Your task to perform on an android device: Search for "logitech g pro" on amazon, select the first entry, and add it to the cart. Image 0: 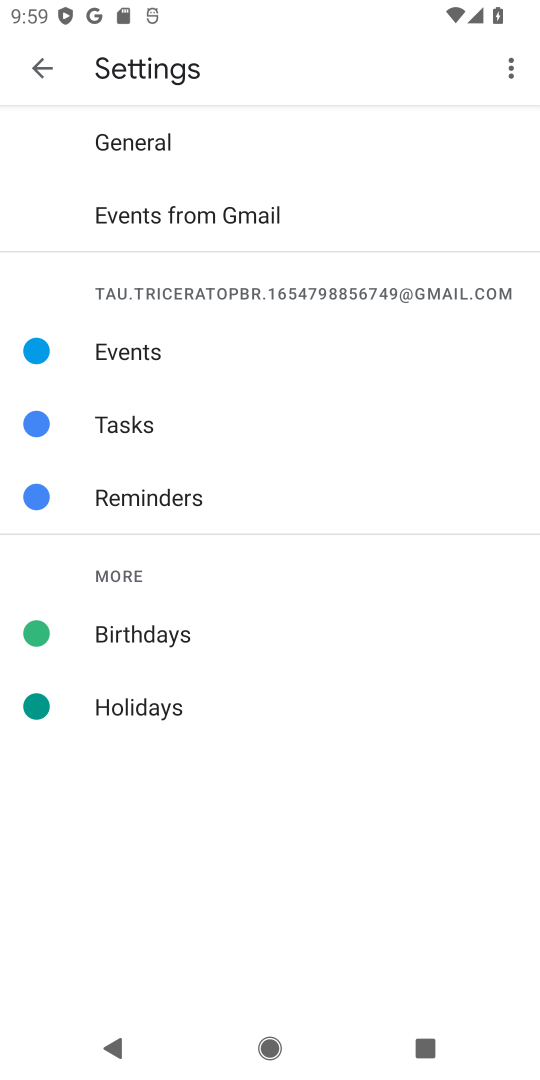
Step 0: press home button
Your task to perform on an android device: Search for "logitech g pro" on amazon, select the first entry, and add it to the cart. Image 1: 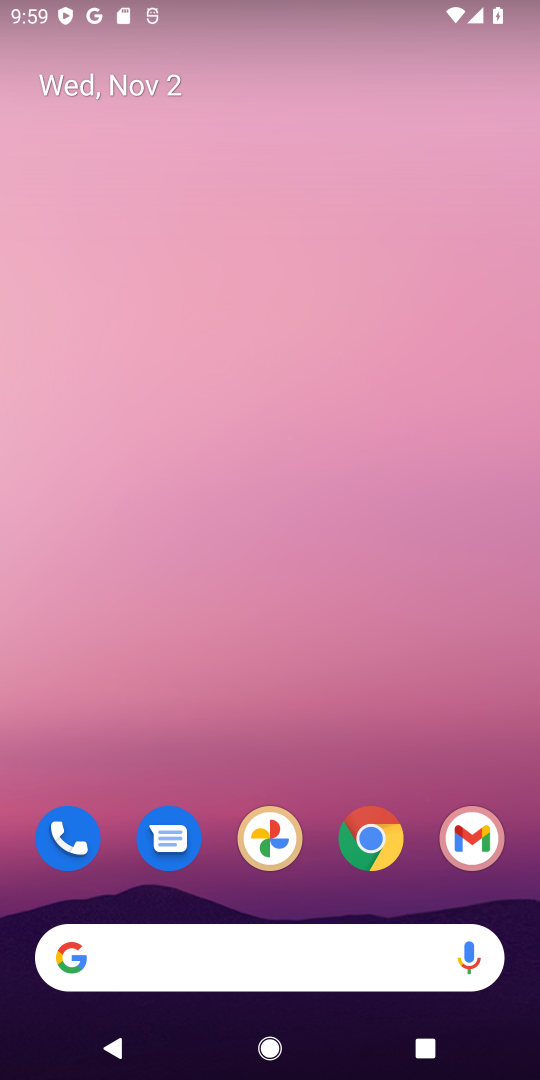
Step 1: click (367, 848)
Your task to perform on an android device: Search for "logitech g pro" on amazon, select the first entry, and add it to the cart. Image 2: 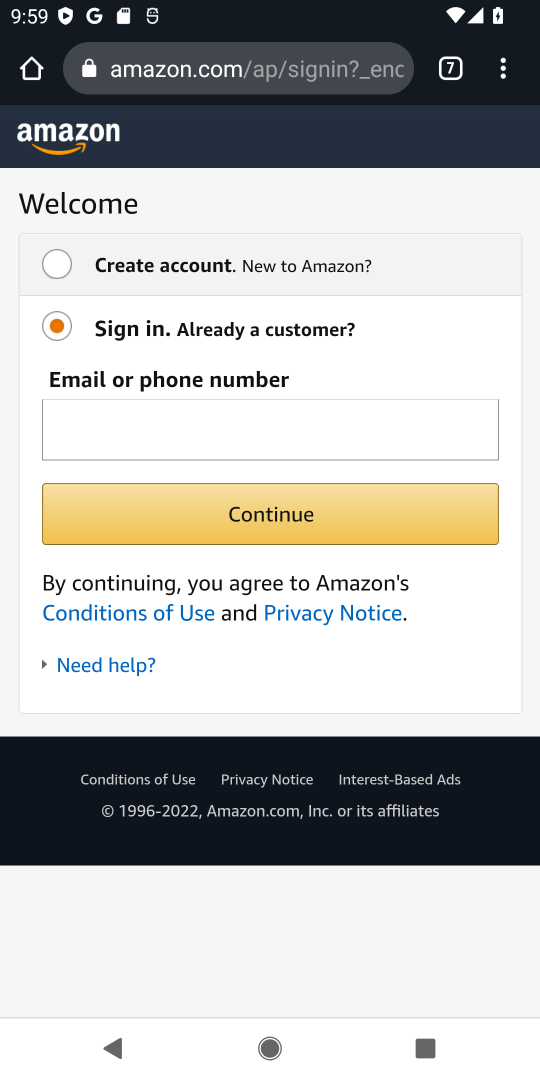
Step 2: press back button
Your task to perform on an android device: Search for "logitech g pro" on amazon, select the first entry, and add it to the cart. Image 3: 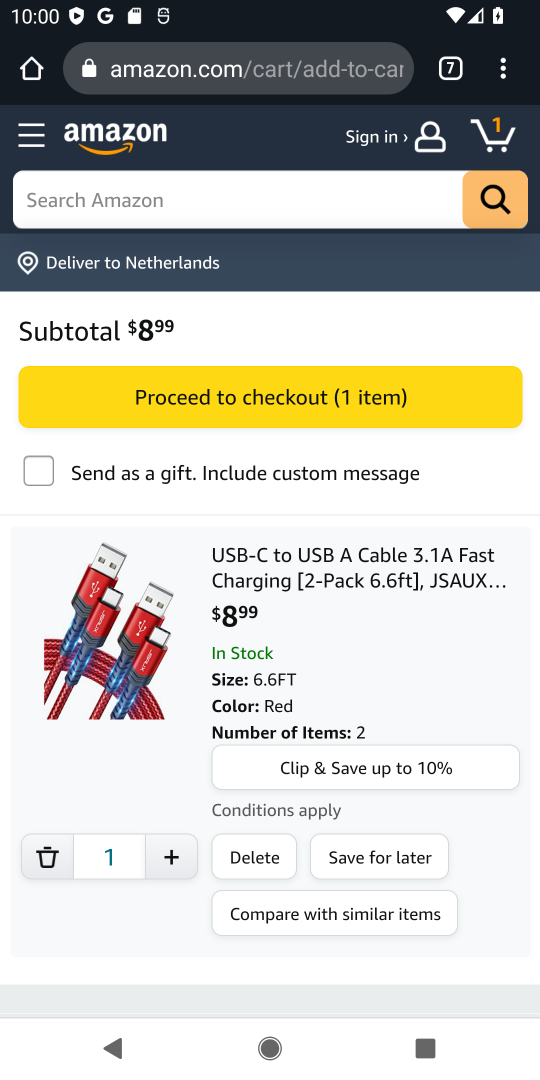
Step 3: press back button
Your task to perform on an android device: Search for "logitech g pro" on amazon, select the first entry, and add it to the cart. Image 4: 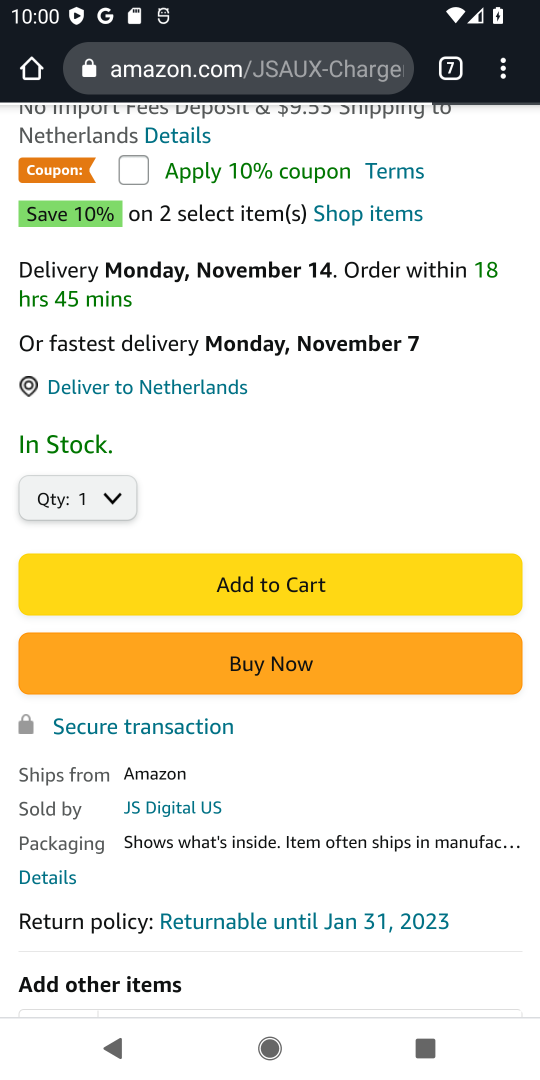
Step 4: click (355, 199)
Your task to perform on an android device: Search for "logitech g pro" on amazon, select the first entry, and add it to the cart. Image 5: 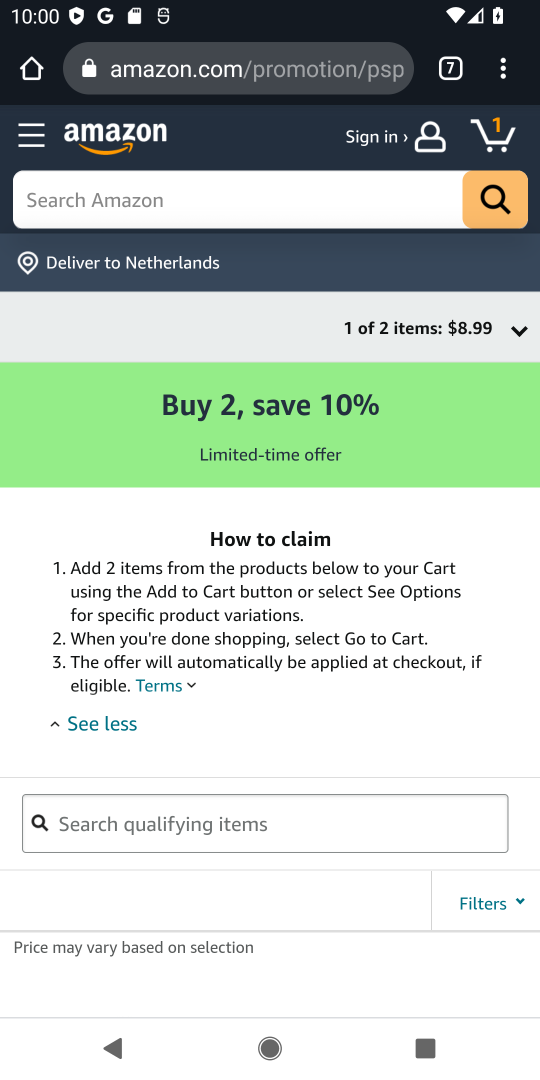
Step 5: click (465, 158)
Your task to perform on an android device: Search for "logitech g pro" on amazon, select the first entry, and add it to the cart. Image 6: 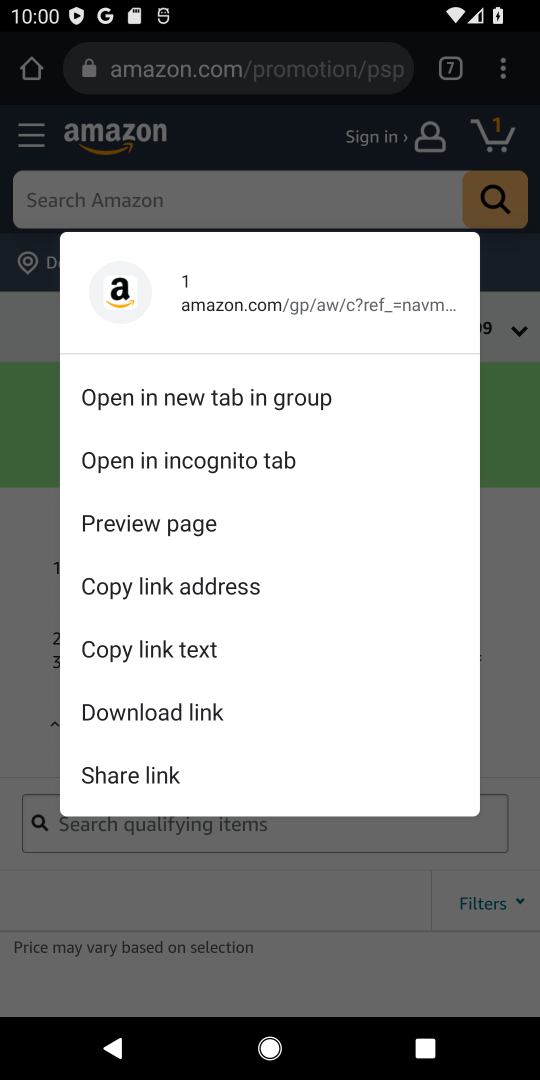
Step 6: click (388, 212)
Your task to perform on an android device: Search for "logitech g pro" on amazon, select the first entry, and add it to the cart. Image 7: 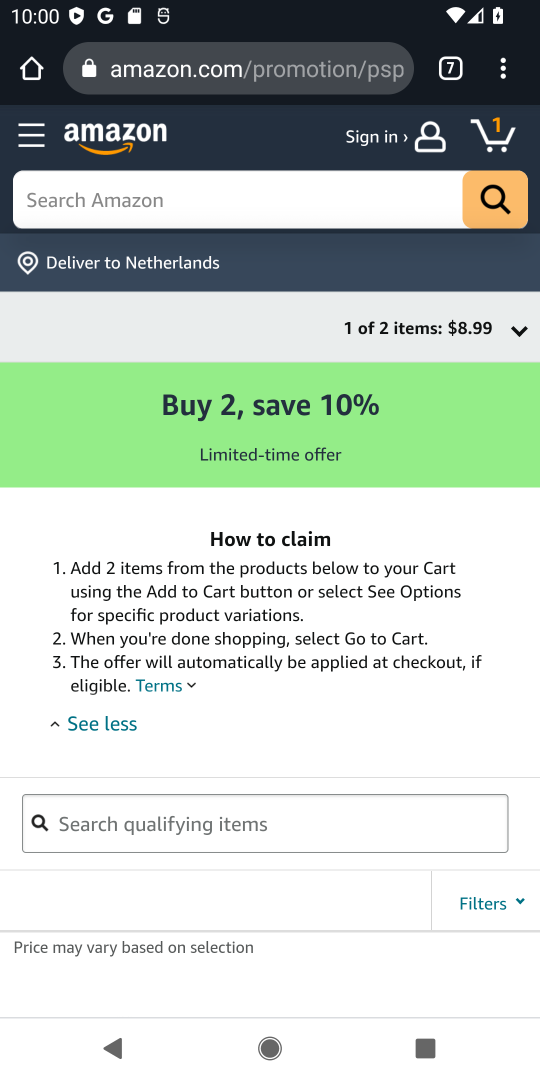
Step 7: click (252, 202)
Your task to perform on an android device: Search for "logitech g pro" on amazon, select the first entry, and add it to the cart. Image 8: 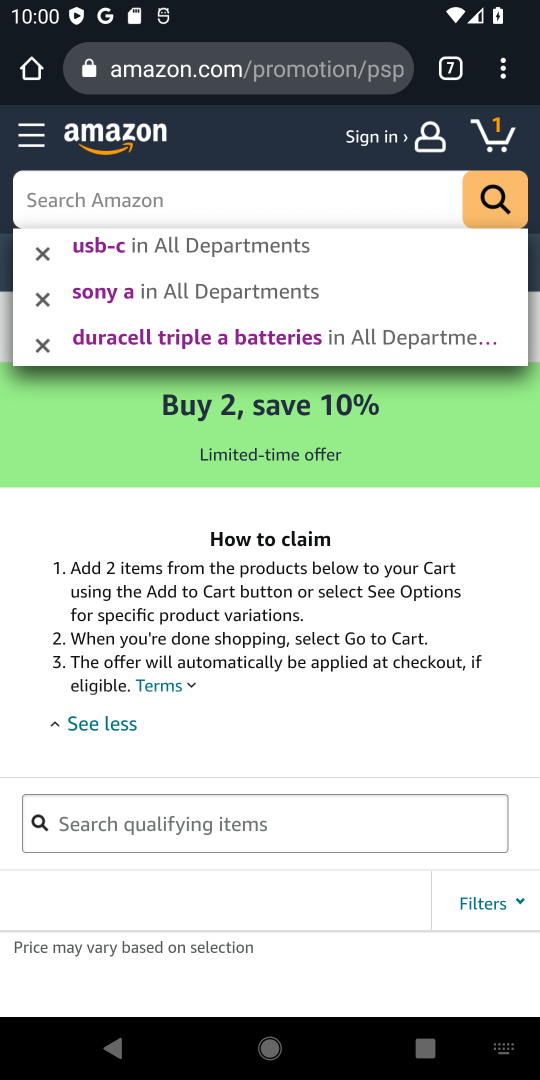
Step 8: type "logitech g pro"
Your task to perform on an android device: Search for "logitech g pro" on amazon, select the first entry, and add it to the cart. Image 9: 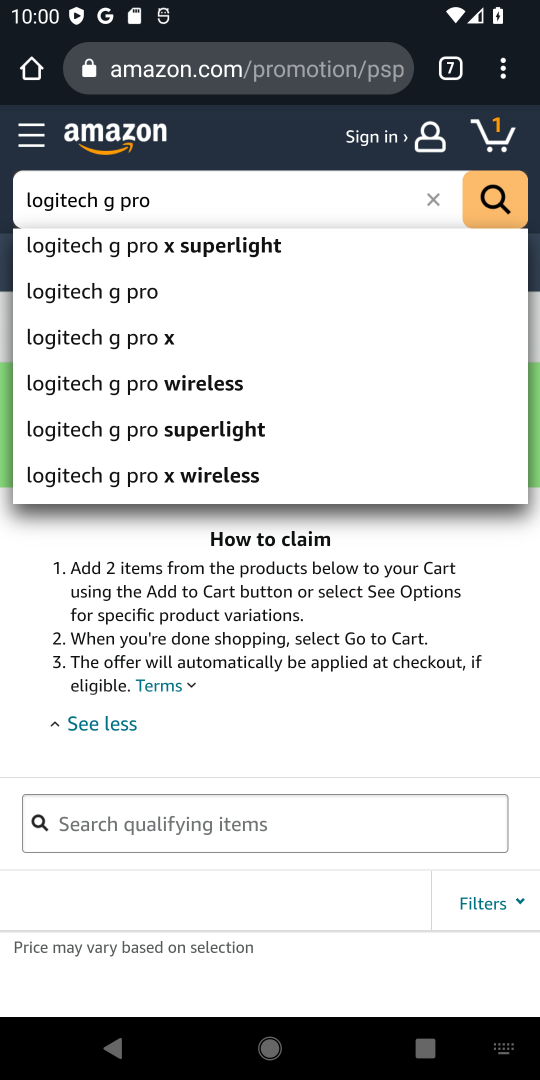
Step 9: click (109, 290)
Your task to perform on an android device: Search for "logitech g pro" on amazon, select the first entry, and add it to the cart. Image 10: 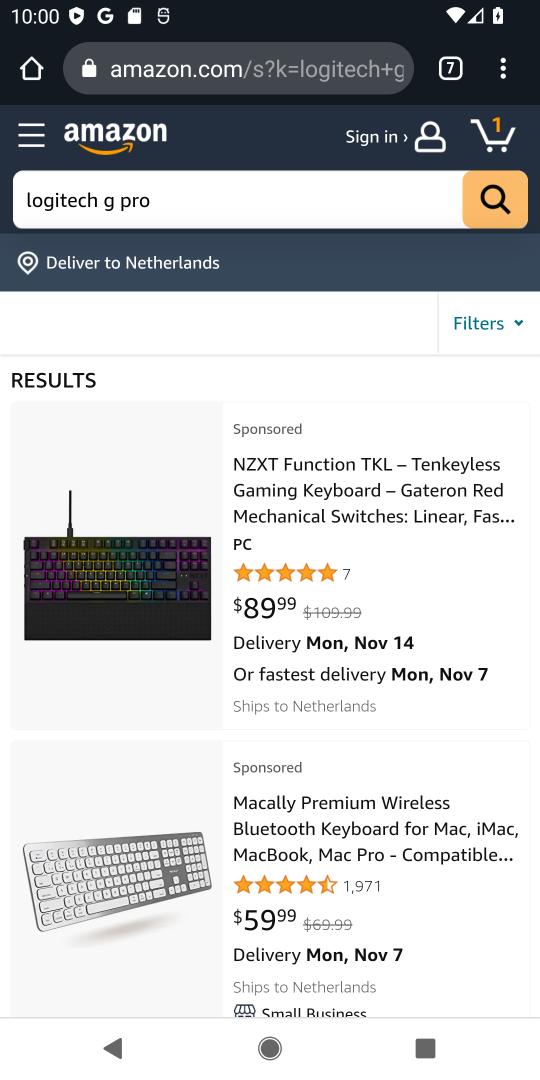
Step 10: drag from (412, 969) to (468, 565)
Your task to perform on an android device: Search for "logitech g pro" on amazon, select the first entry, and add it to the cart. Image 11: 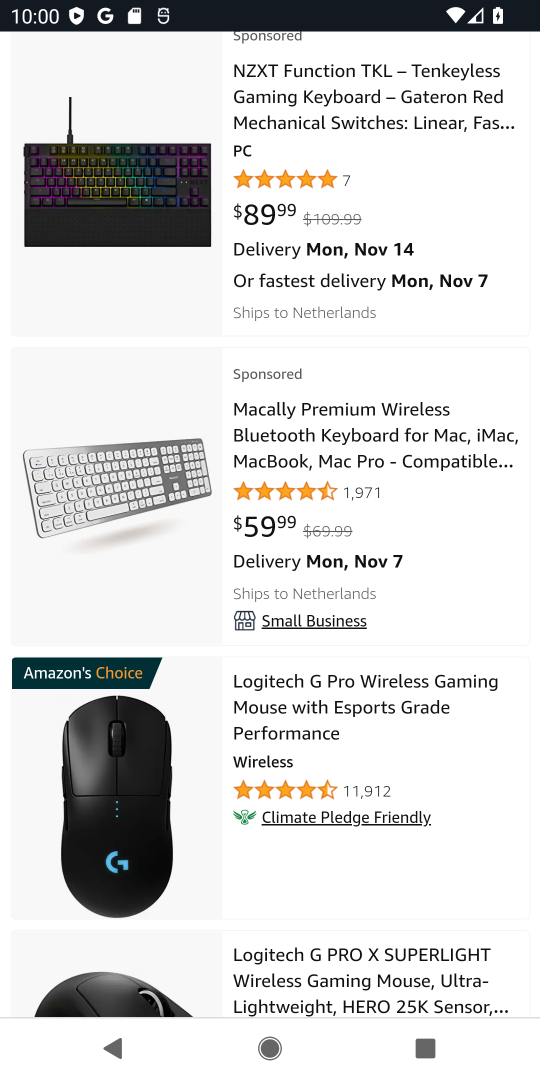
Step 11: click (465, 690)
Your task to perform on an android device: Search for "logitech g pro" on amazon, select the first entry, and add it to the cart. Image 12: 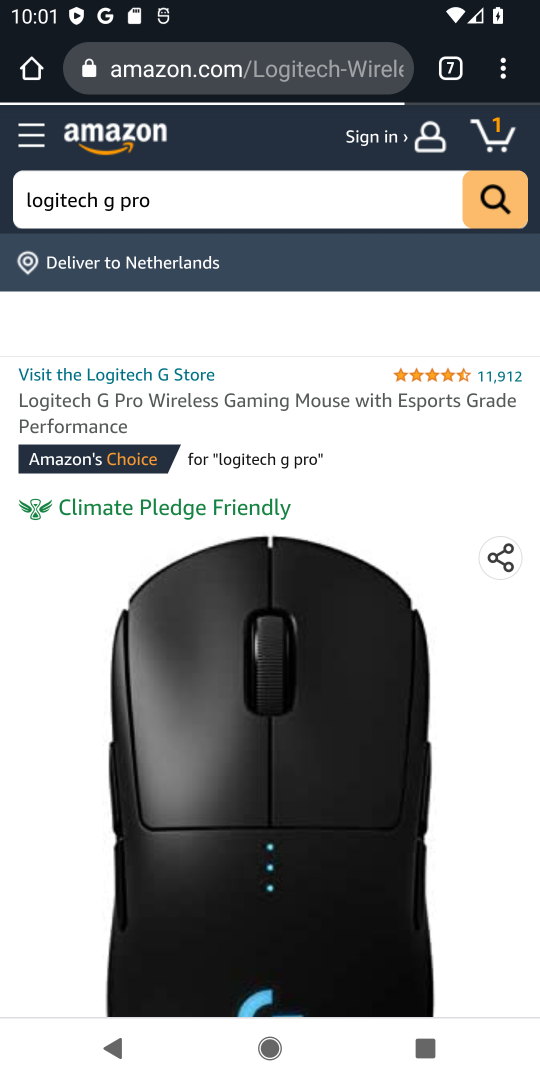
Step 12: drag from (460, 871) to (500, 1)
Your task to perform on an android device: Search for "logitech g pro" on amazon, select the first entry, and add it to the cart. Image 13: 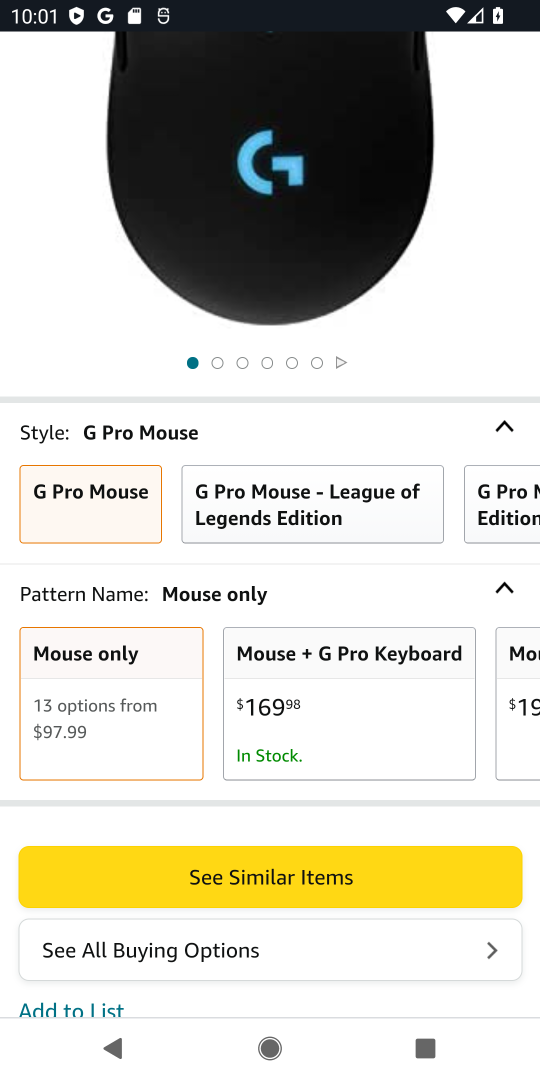
Step 13: drag from (267, 924) to (394, 358)
Your task to perform on an android device: Search for "logitech g pro" on amazon, select the first entry, and add it to the cart. Image 14: 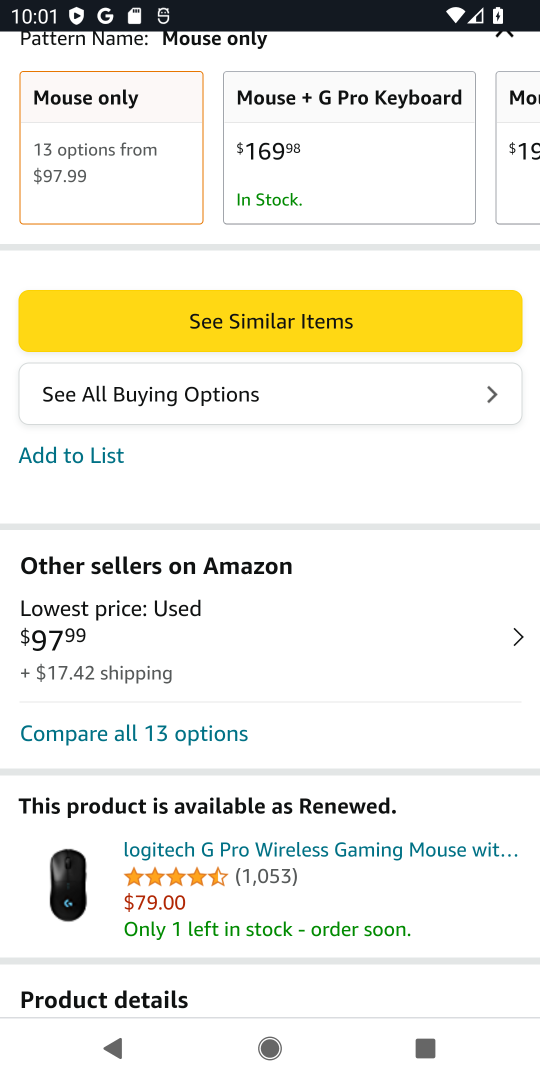
Step 14: click (98, 459)
Your task to perform on an android device: Search for "logitech g pro" on amazon, select the first entry, and add it to the cart. Image 15: 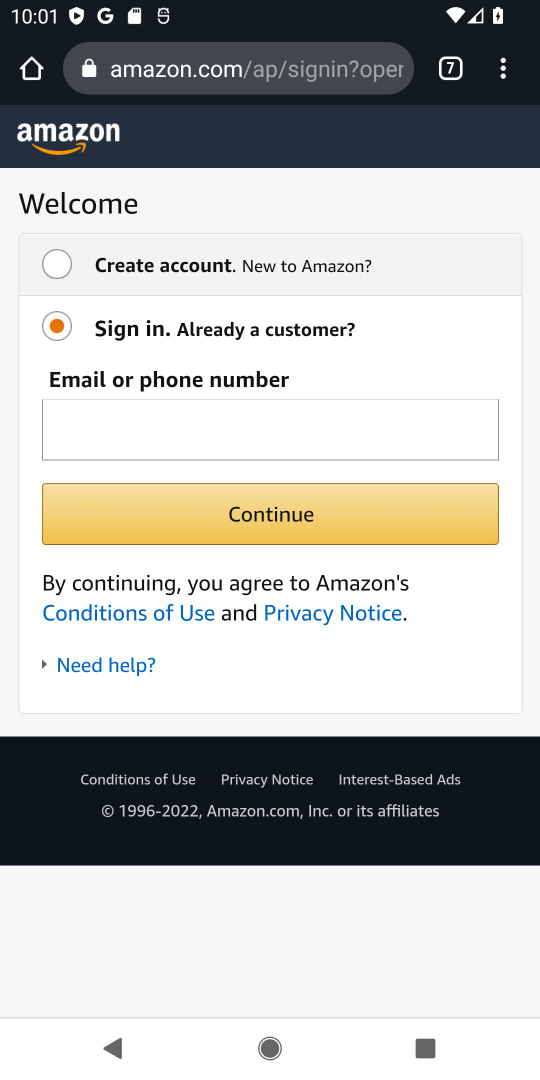
Step 15: task complete